Your task to perform on an android device: Clear the shopping cart on bestbuy.com. Add usb-c to usb-a to the cart on bestbuy.com, then select checkout. Image 0: 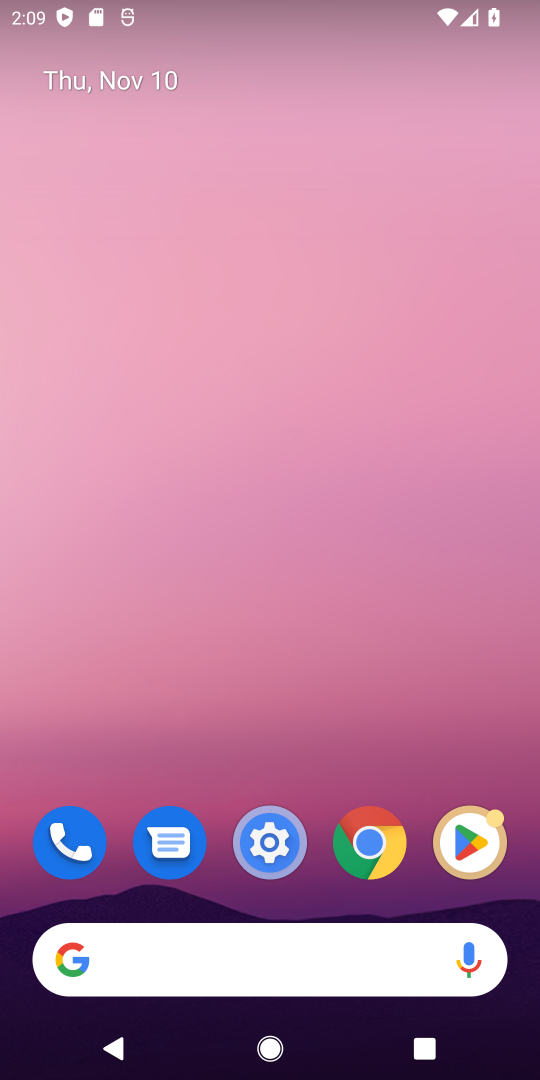
Step 0: press home button
Your task to perform on an android device: Clear the shopping cart on bestbuy.com. Add usb-c to usb-a to the cart on bestbuy.com, then select checkout. Image 1: 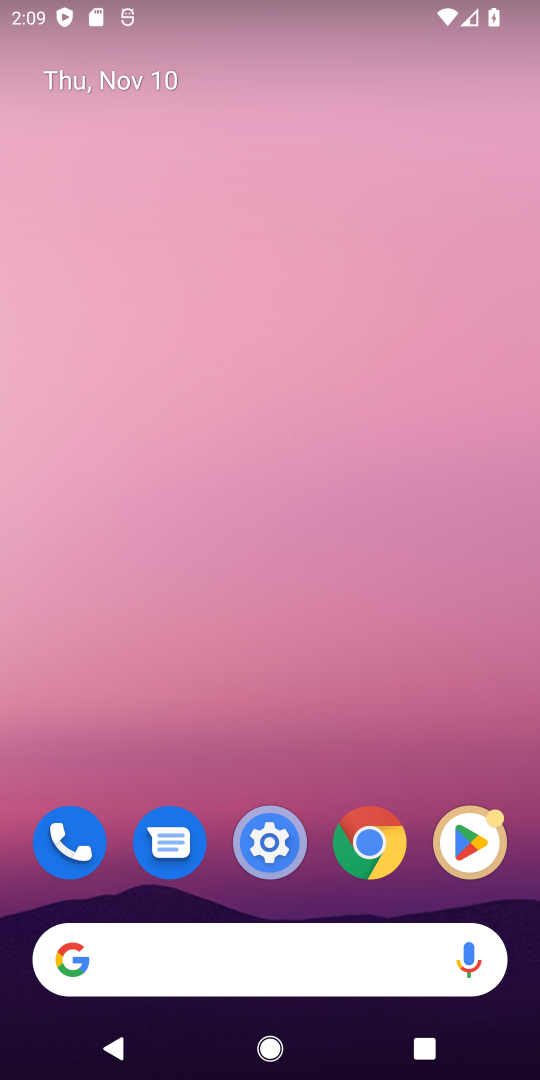
Step 1: click (116, 957)
Your task to perform on an android device: Clear the shopping cart on bestbuy.com. Add usb-c to usb-a to the cart on bestbuy.com, then select checkout. Image 2: 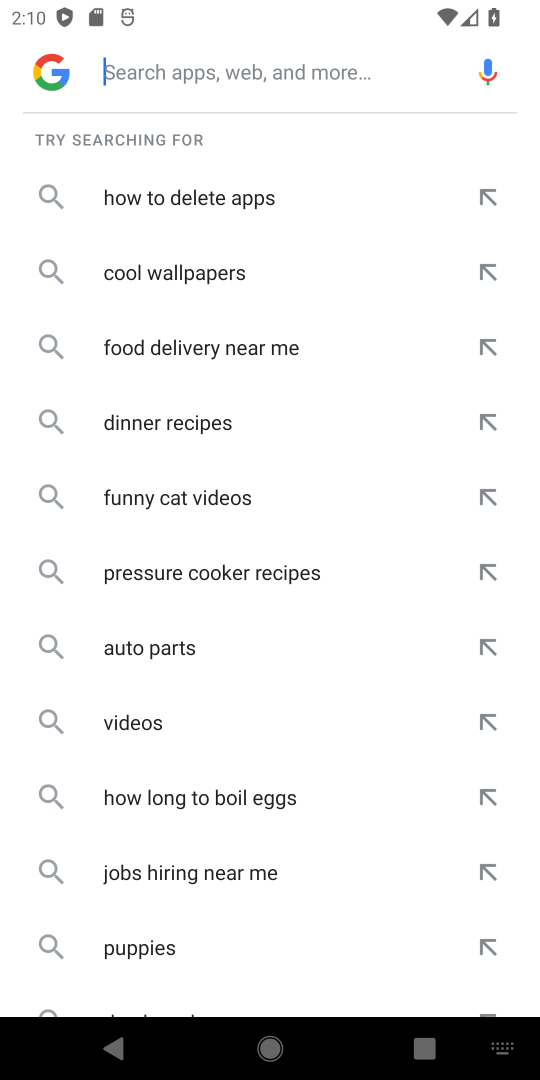
Step 2: type "bestbuy.com"
Your task to perform on an android device: Clear the shopping cart on bestbuy.com. Add usb-c to usb-a to the cart on bestbuy.com, then select checkout. Image 3: 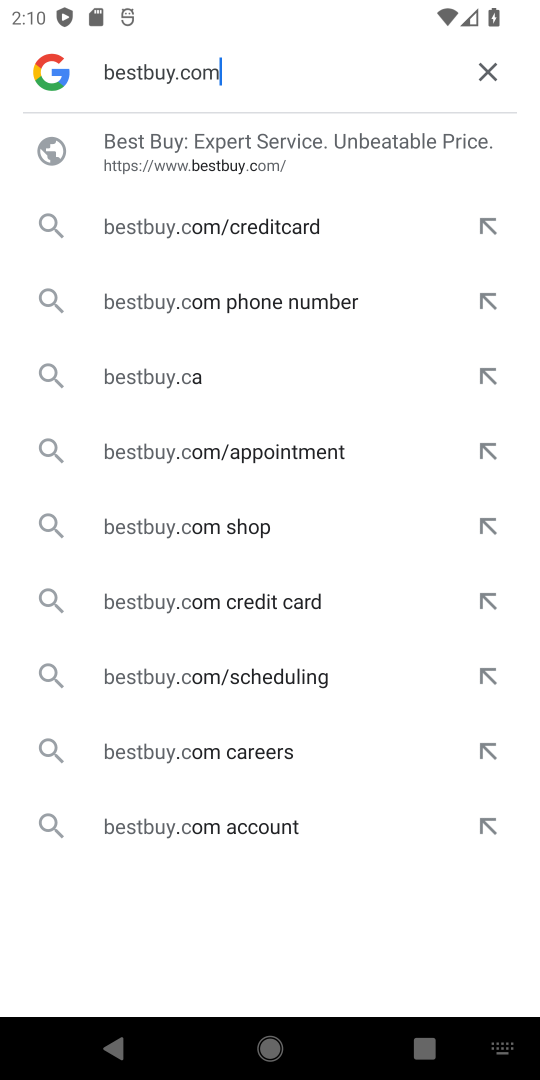
Step 3: press enter
Your task to perform on an android device: Clear the shopping cart on bestbuy.com. Add usb-c to usb-a to the cart on bestbuy.com, then select checkout. Image 4: 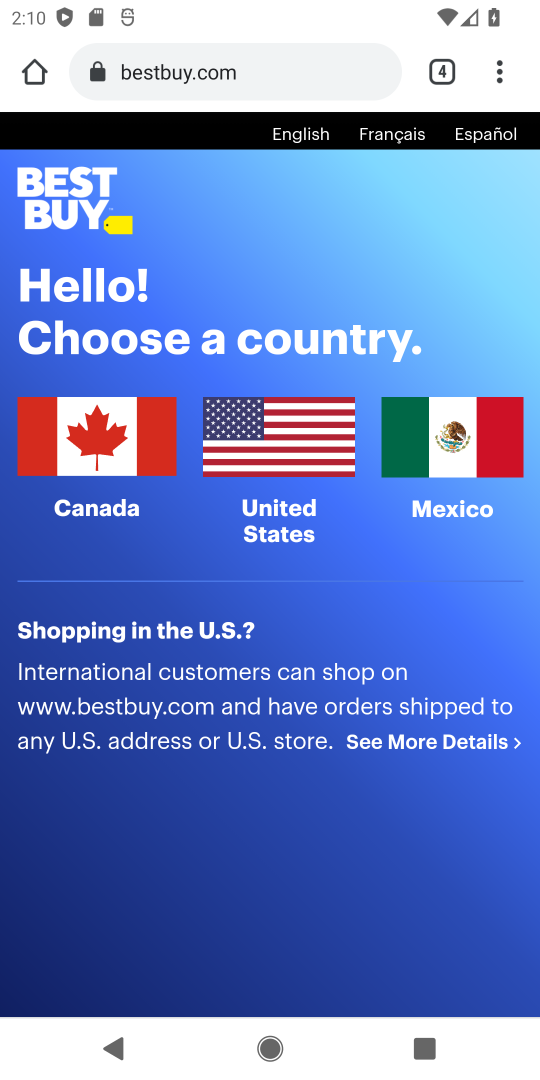
Step 4: click (88, 437)
Your task to perform on an android device: Clear the shopping cart on bestbuy.com. Add usb-c to usb-a to the cart on bestbuy.com, then select checkout. Image 5: 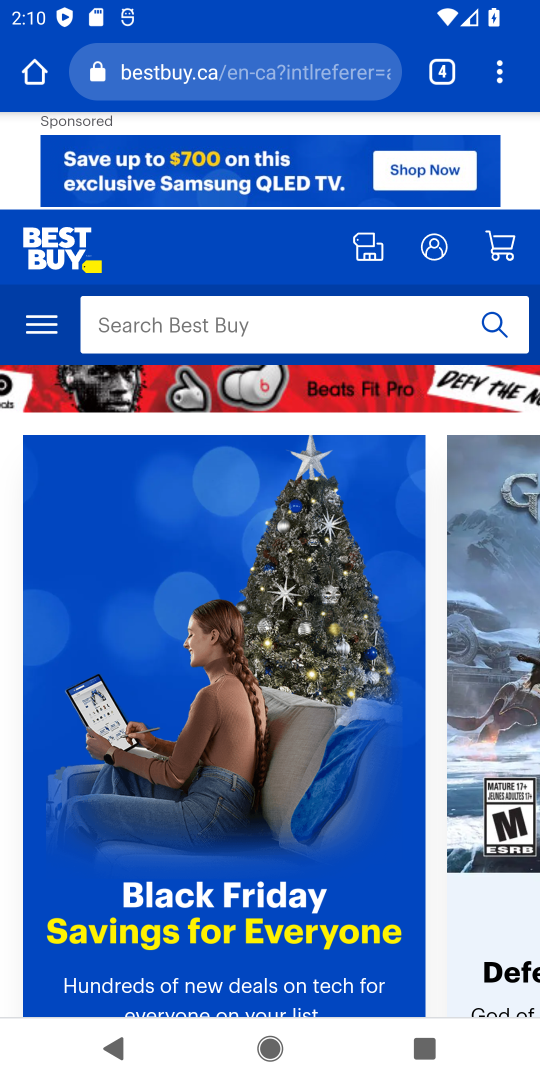
Step 5: click (162, 320)
Your task to perform on an android device: Clear the shopping cart on bestbuy.com. Add usb-c to usb-a to the cart on bestbuy.com, then select checkout. Image 6: 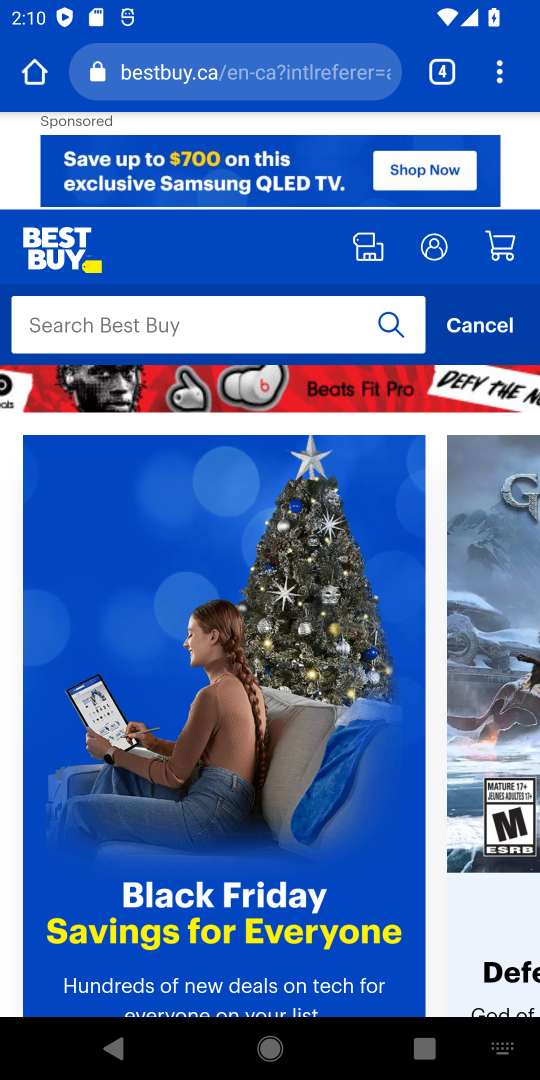
Step 6: press enter
Your task to perform on an android device: Clear the shopping cart on bestbuy.com. Add usb-c to usb-a to the cart on bestbuy.com, then select checkout. Image 7: 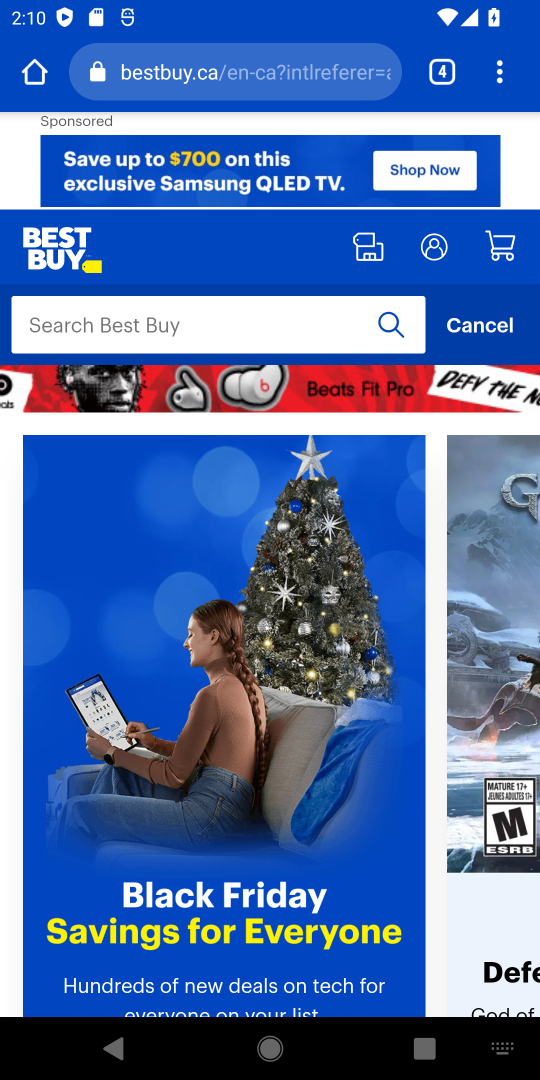
Step 7: type "usb-c to usb-a "
Your task to perform on an android device: Clear the shopping cart on bestbuy.com. Add usb-c to usb-a to the cart on bestbuy.com, then select checkout. Image 8: 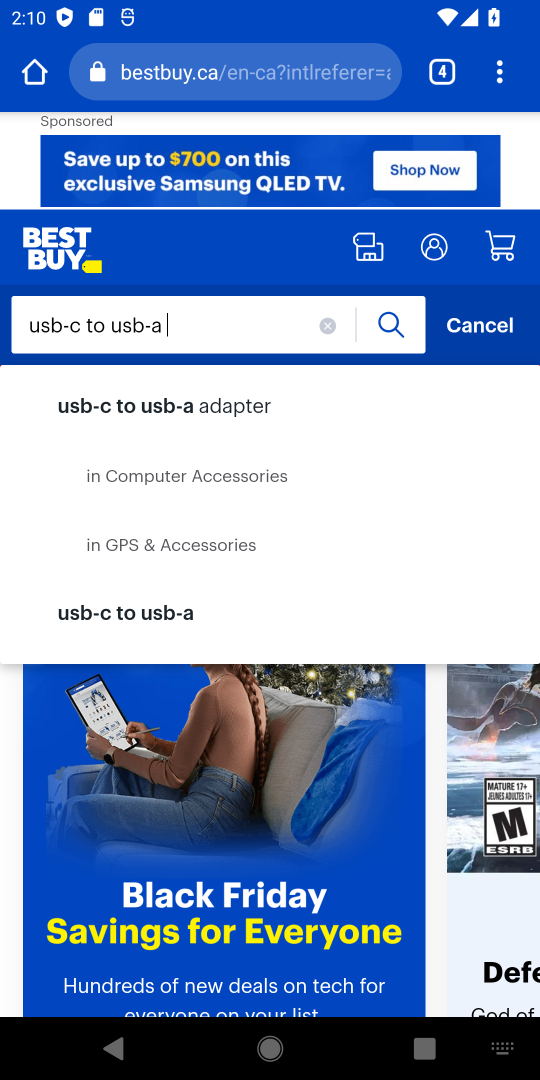
Step 8: click (393, 325)
Your task to perform on an android device: Clear the shopping cart on bestbuy.com. Add usb-c to usb-a to the cart on bestbuy.com, then select checkout. Image 9: 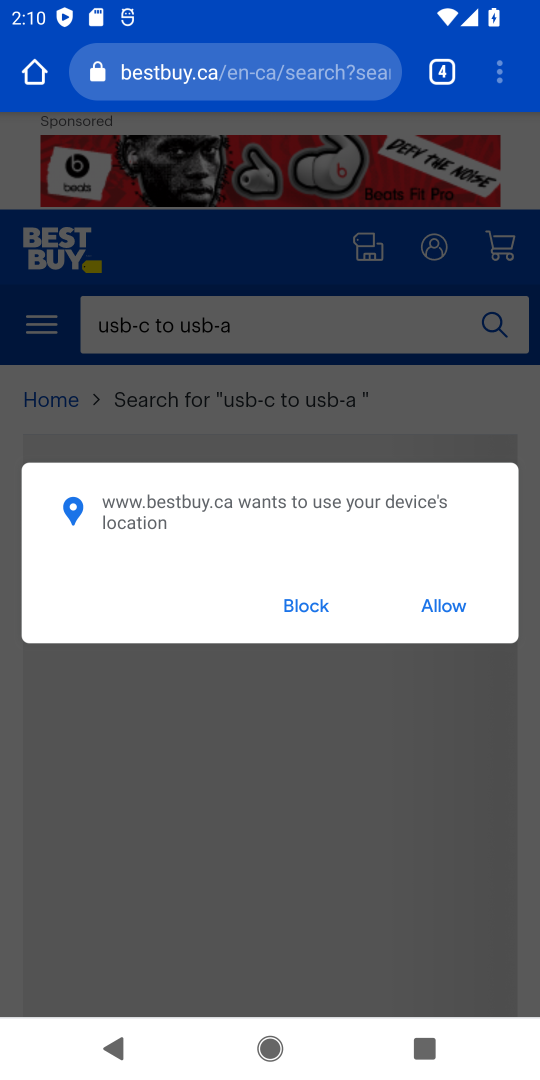
Step 9: click (310, 598)
Your task to perform on an android device: Clear the shopping cart on bestbuy.com. Add usb-c to usb-a to the cart on bestbuy.com, then select checkout. Image 10: 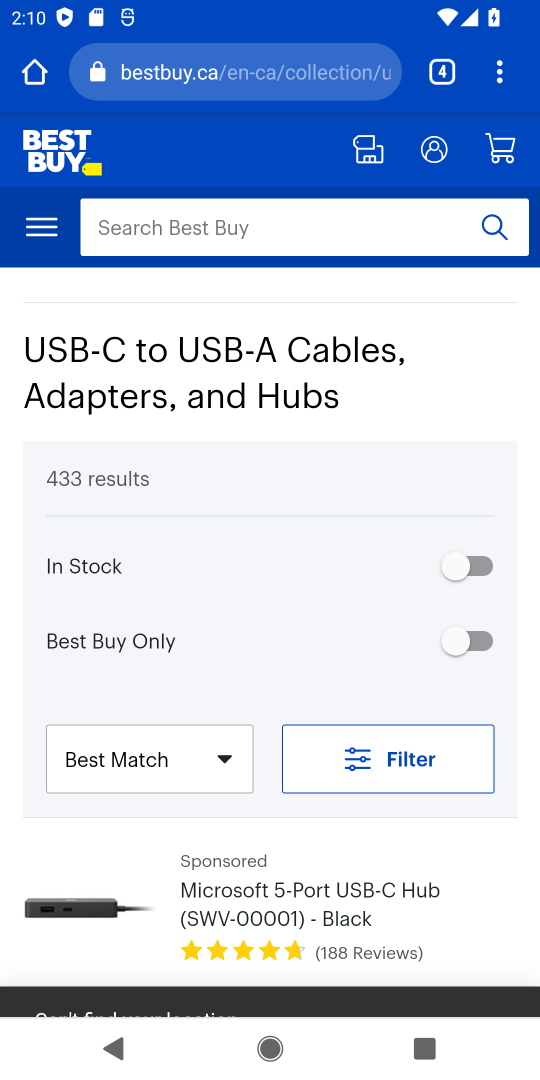
Step 10: drag from (377, 847) to (401, 517)
Your task to perform on an android device: Clear the shopping cart on bestbuy.com. Add usb-c to usb-a to the cart on bestbuy.com, then select checkout. Image 11: 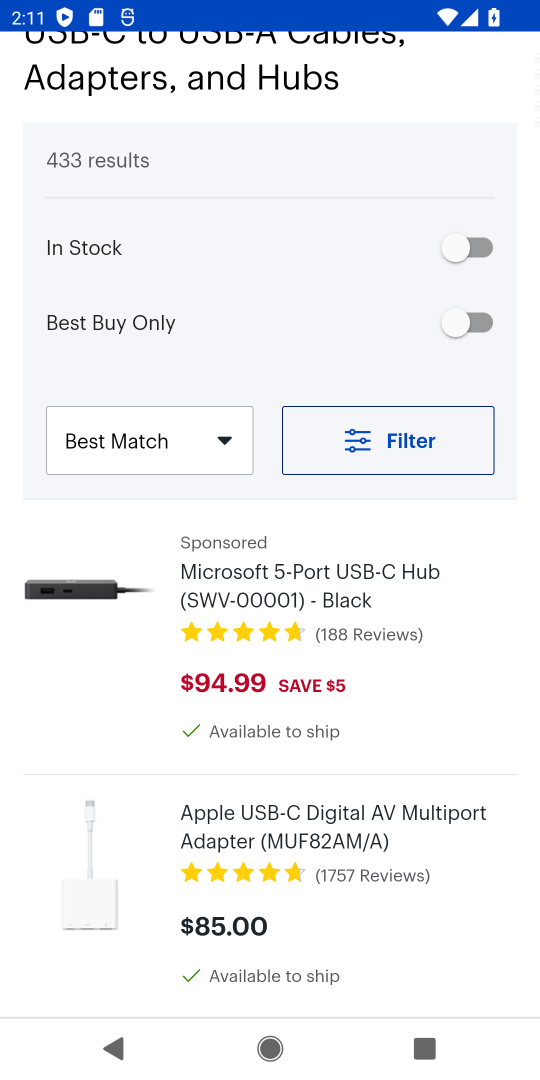
Step 11: drag from (403, 945) to (441, 658)
Your task to perform on an android device: Clear the shopping cart on bestbuy.com. Add usb-c to usb-a to the cart on bestbuy.com, then select checkout. Image 12: 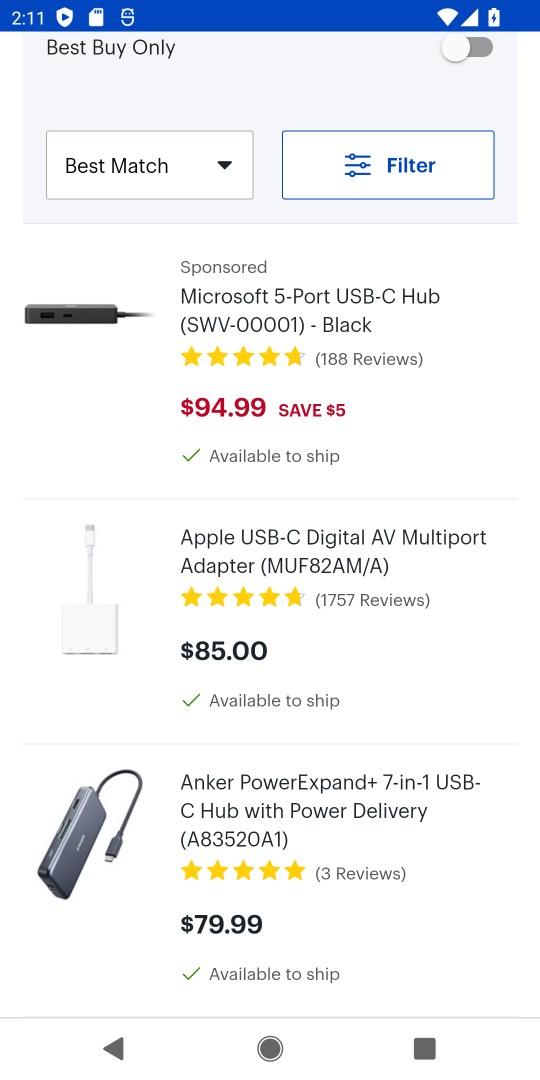
Step 12: drag from (390, 892) to (390, 461)
Your task to perform on an android device: Clear the shopping cart on bestbuy.com. Add usb-c to usb-a to the cart on bestbuy.com, then select checkout. Image 13: 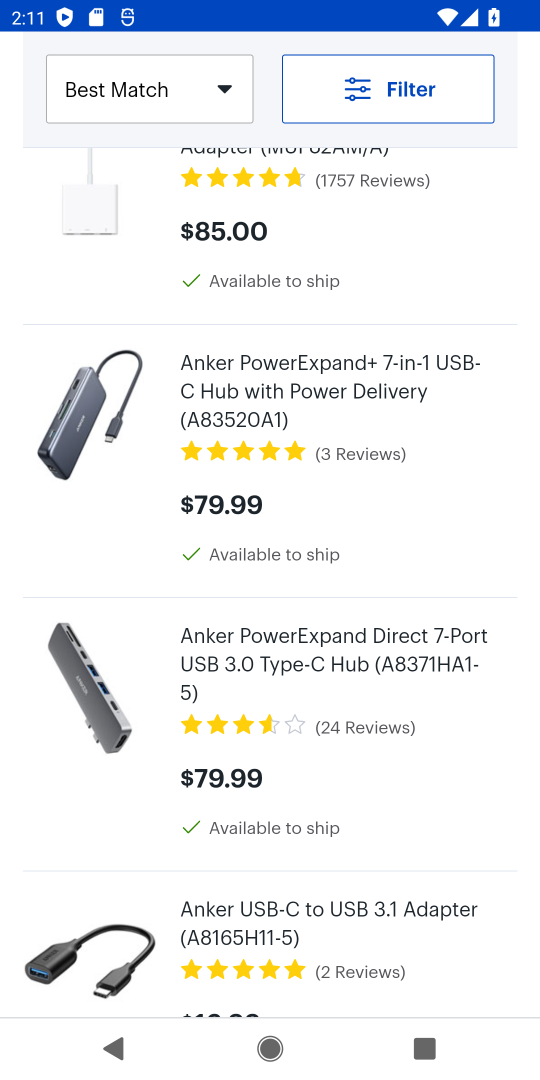
Step 13: drag from (397, 965) to (399, 695)
Your task to perform on an android device: Clear the shopping cart on bestbuy.com. Add usb-c to usb-a to the cart on bestbuy.com, then select checkout. Image 14: 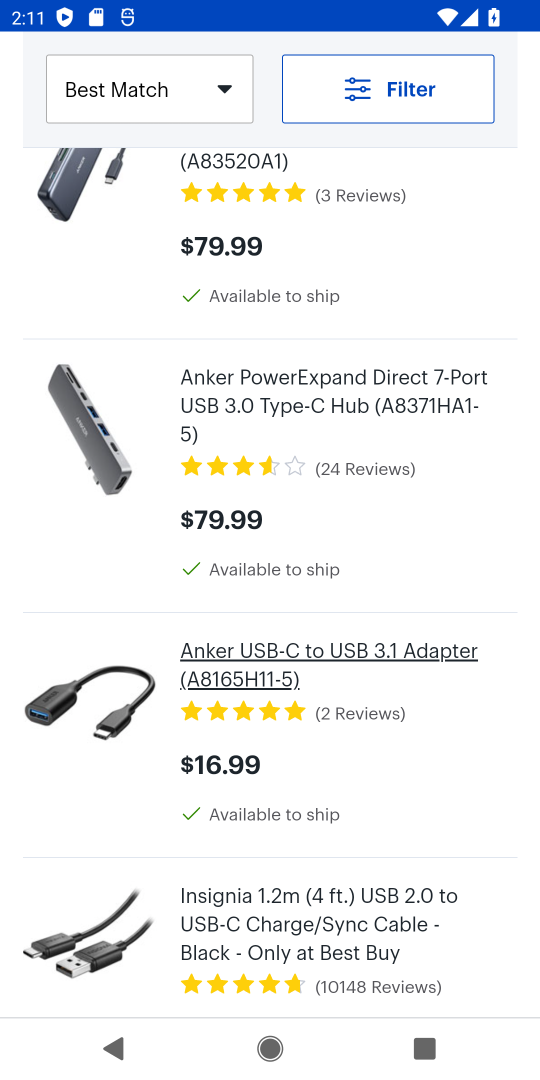
Step 14: drag from (380, 897) to (399, 583)
Your task to perform on an android device: Clear the shopping cart on bestbuy.com. Add usb-c to usb-a to the cart on bestbuy.com, then select checkout. Image 15: 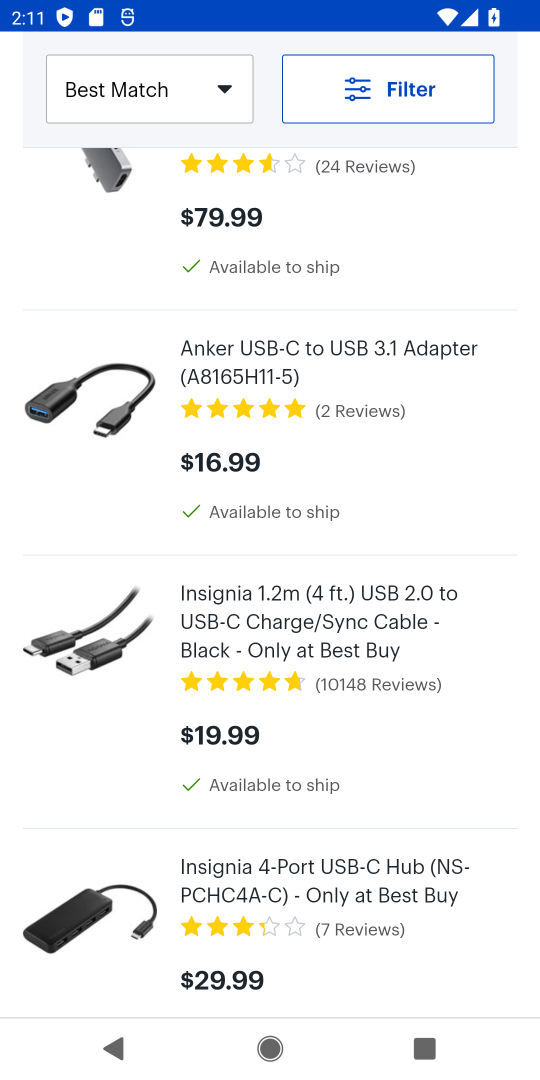
Step 15: drag from (362, 929) to (377, 766)
Your task to perform on an android device: Clear the shopping cart on bestbuy.com. Add usb-c to usb-a to the cart on bestbuy.com, then select checkout. Image 16: 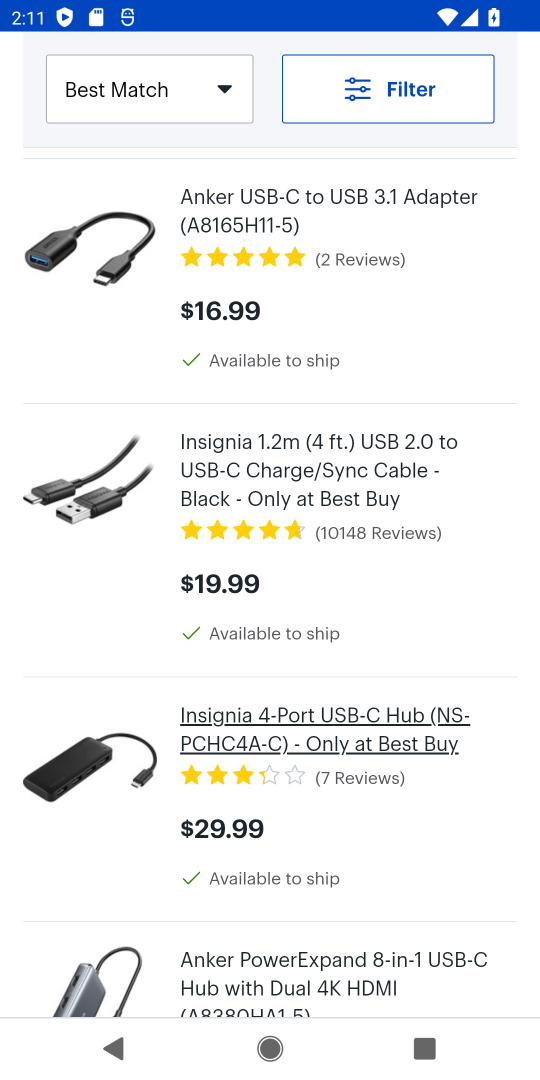
Step 16: drag from (375, 868) to (433, 535)
Your task to perform on an android device: Clear the shopping cart on bestbuy.com. Add usb-c to usb-a to the cart on bestbuy.com, then select checkout. Image 17: 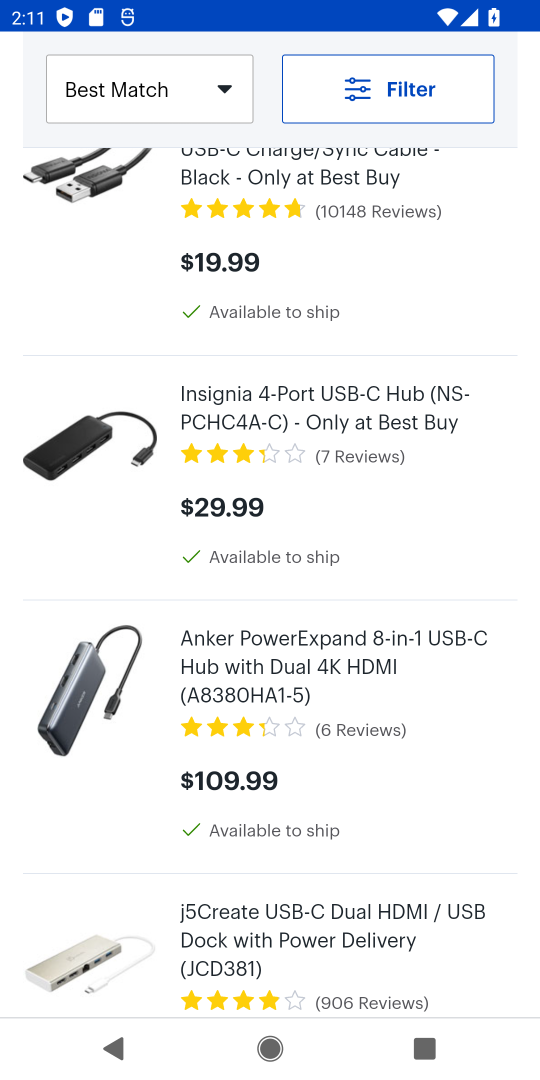
Step 17: drag from (352, 884) to (395, 475)
Your task to perform on an android device: Clear the shopping cart on bestbuy.com. Add usb-c to usb-a to the cart on bestbuy.com, then select checkout. Image 18: 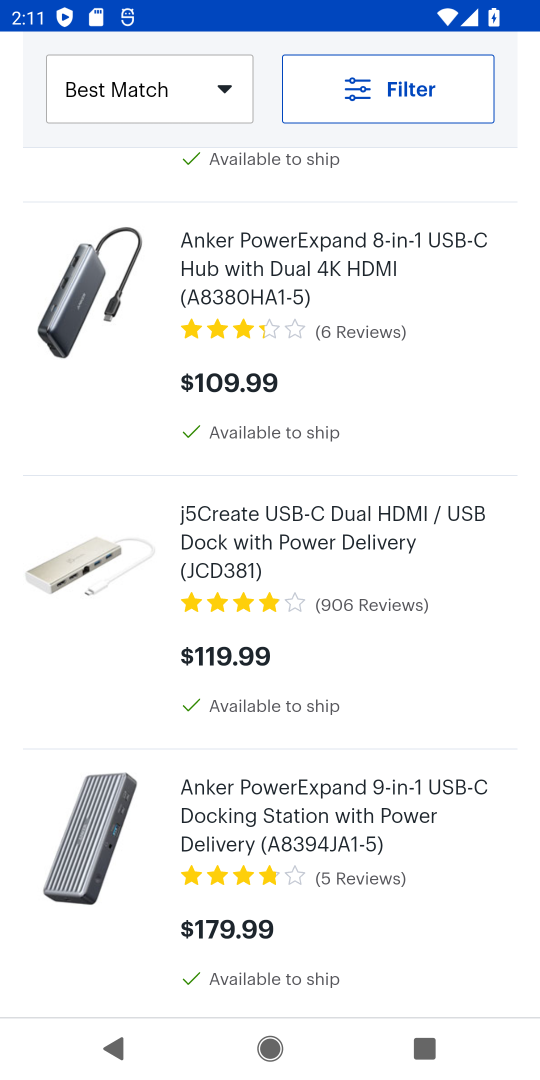
Step 18: drag from (364, 876) to (416, 536)
Your task to perform on an android device: Clear the shopping cart on bestbuy.com. Add usb-c to usb-a to the cart on bestbuy.com, then select checkout. Image 19: 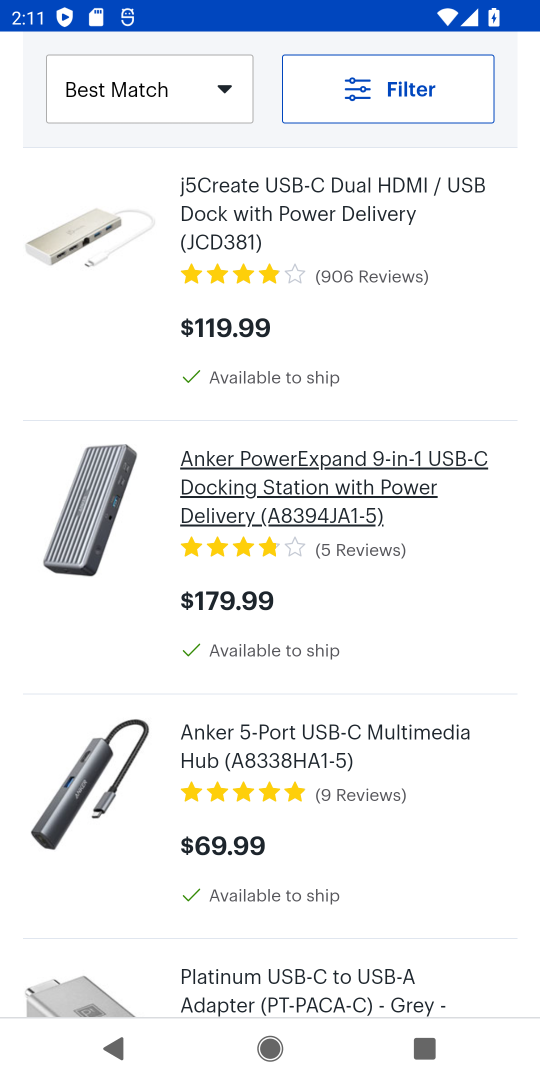
Step 19: drag from (462, 903) to (466, 481)
Your task to perform on an android device: Clear the shopping cart on bestbuy.com. Add usb-c to usb-a to the cart on bestbuy.com, then select checkout. Image 20: 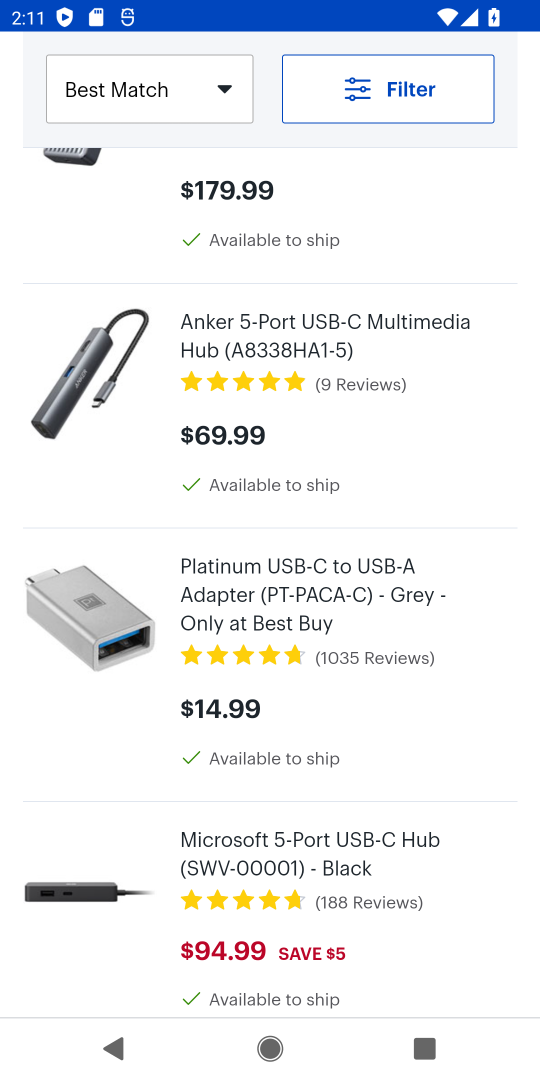
Step 20: drag from (453, 903) to (466, 496)
Your task to perform on an android device: Clear the shopping cart on bestbuy.com. Add usb-c to usb-a to the cart on bestbuy.com, then select checkout. Image 21: 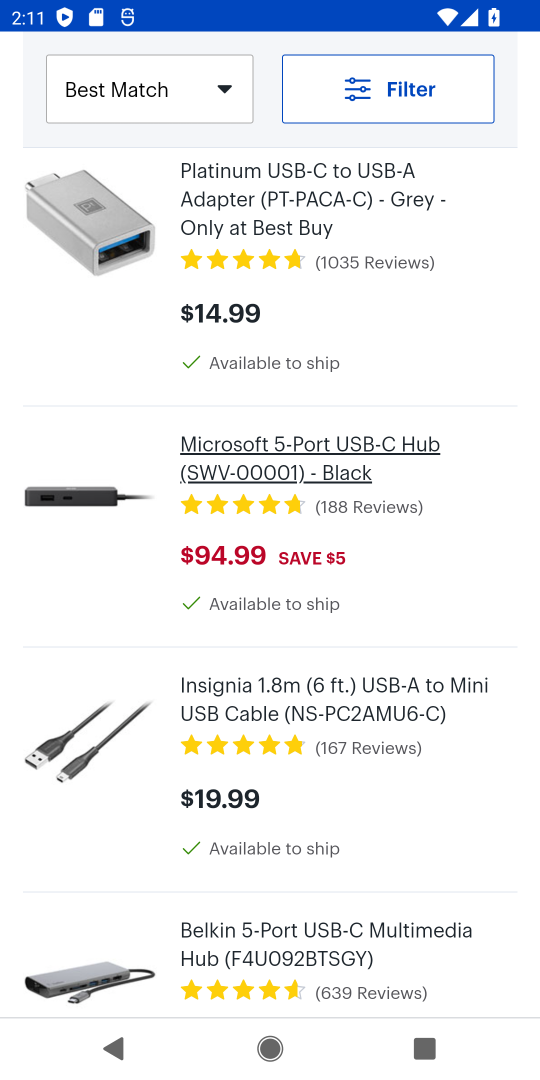
Step 21: drag from (408, 844) to (415, 714)
Your task to perform on an android device: Clear the shopping cart on bestbuy.com. Add usb-c to usb-a to the cart on bestbuy.com, then select checkout. Image 22: 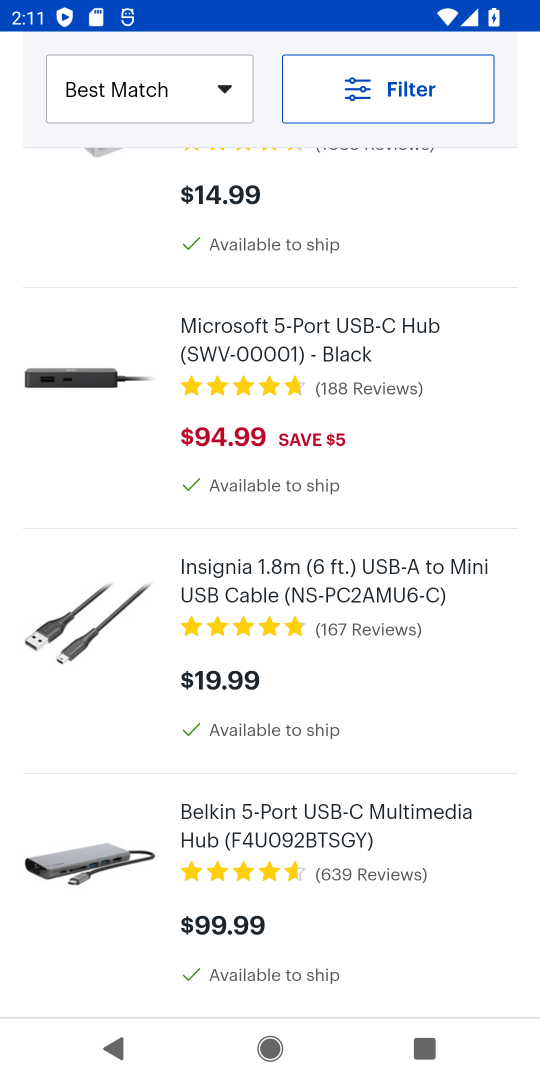
Step 22: drag from (411, 829) to (426, 679)
Your task to perform on an android device: Clear the shopping cart on bestbuy.com. Add usb-c to usb-a to the cart on bestbuy.com, then select checkout. Image 23: 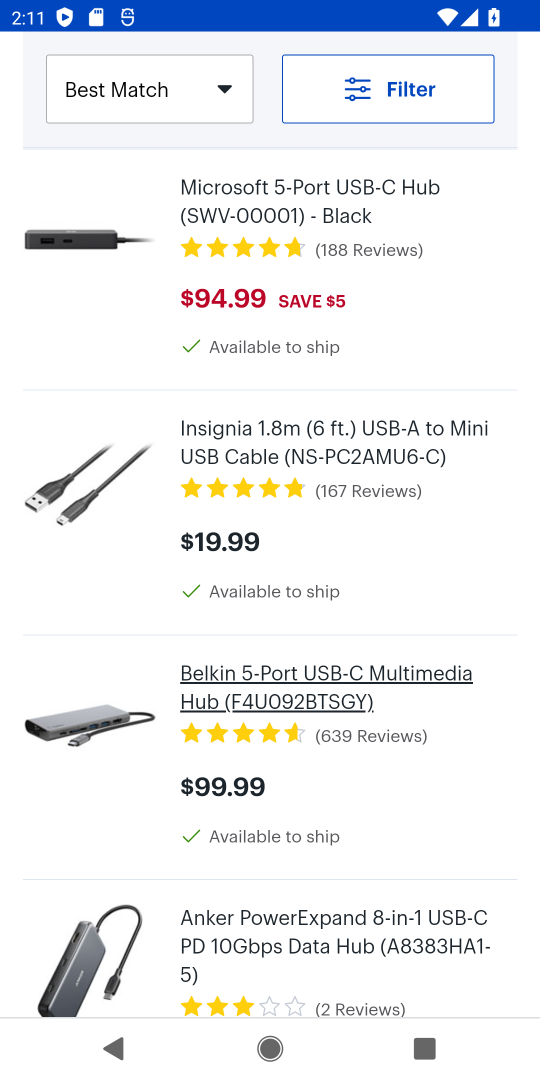
Step 23: drag from (404, 845) to (401, 476)
Your task to perform on an android device: Clear the shopping cart on bestbuy.com. Add usb-c to usb-a to the cart on bestbuy.com, then select checkout. Image 24: 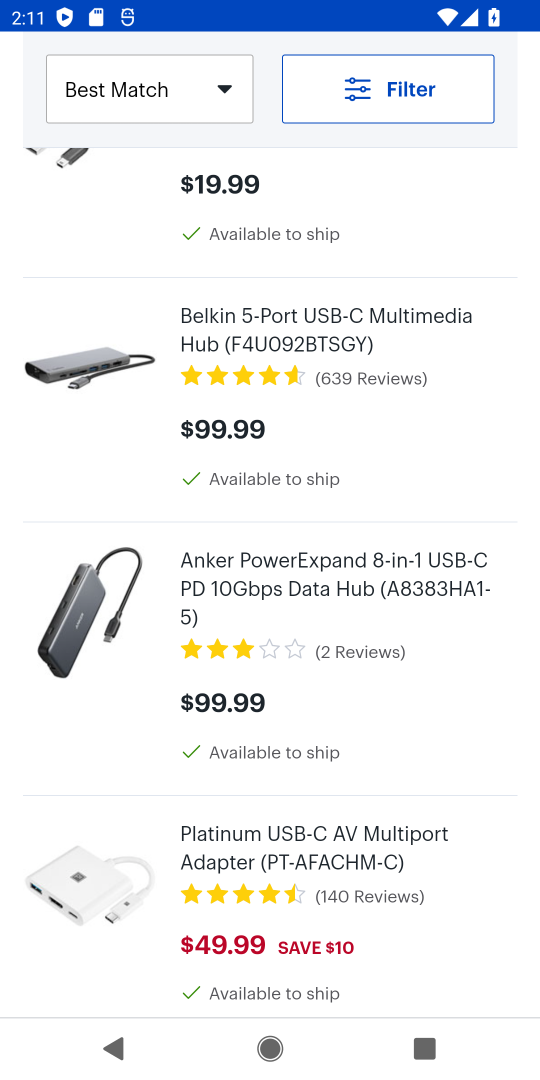
Step 24: drag from (371, 917) to (395, 517)
Your task to perform on an android device: Clear the shopping cart on bestbuy.com. Add usb-c to usb-a to the cart on bestbuy.com, then select checkout. Image 25: 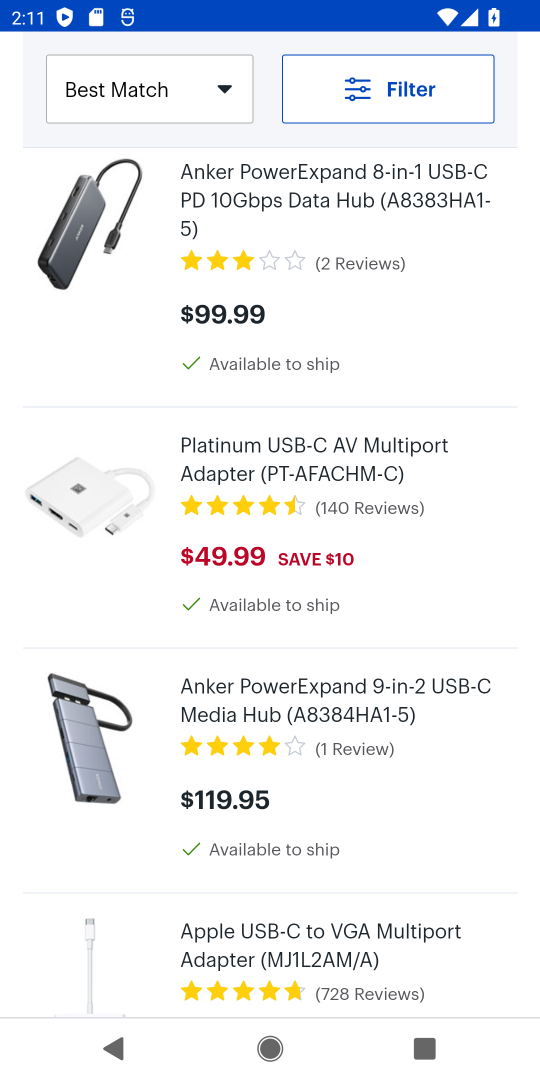
Step 25: drag from (366, 895) to (397, 555)
Your task to perform on an android device: Clear the shopping cart on bestbuy.com. Add usb-c to usb-a to the cart on bestbuy.com, then select checkout. Image 26: 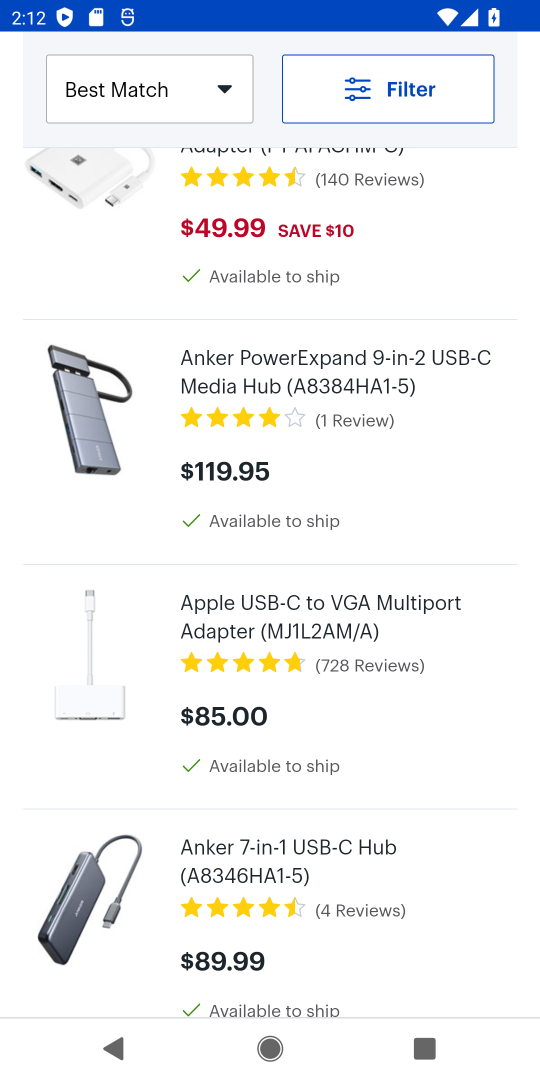
Step 26: drag from (392, 877) to (429, 516)
Your task to perform on an android device: Clear the shopping cart on bestbuy.com. Add usb-c to usb-a to the cart on bestbuy.com, then select checkout. Image 27: 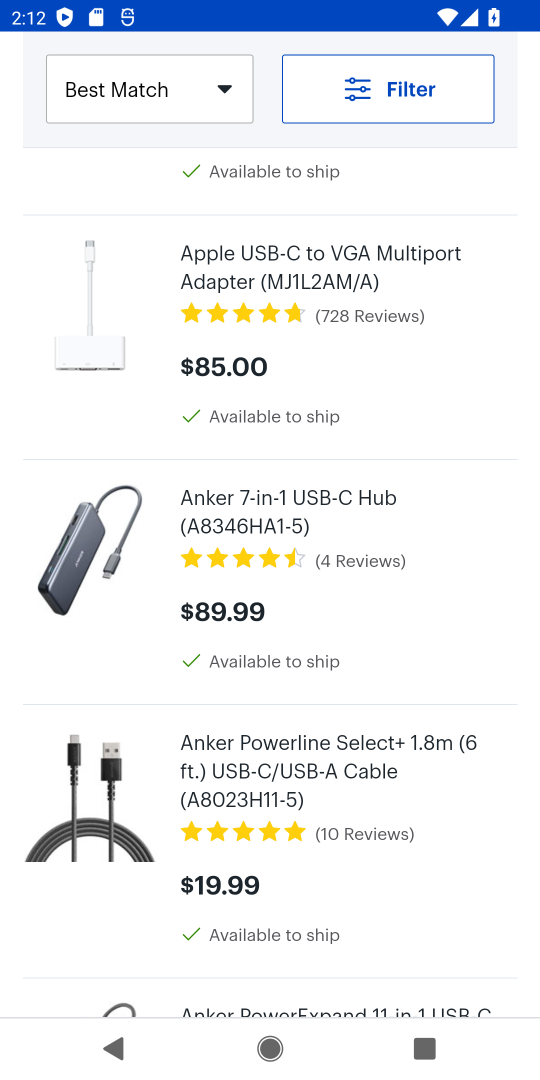
Step 27: click (298, 772)
Your task to perform on an android device: Clear the shopping cart on bestbuy.com. Add usb-c to usb-a to the cart on bestbuy.com, then select checkout. Image 28: 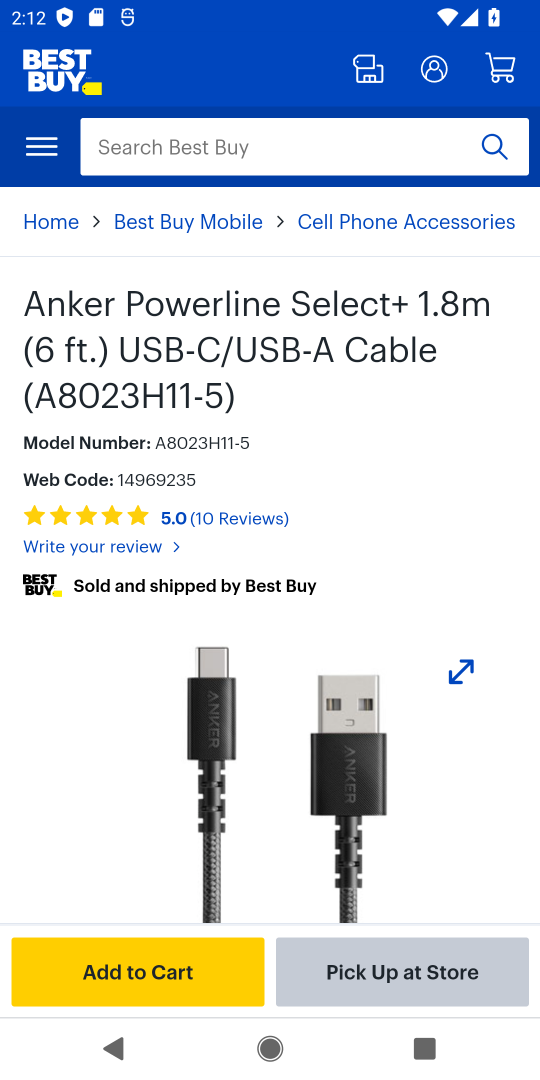
Step 28: drag from (305, 776) to (326, 481)
Your task to perform on an android device: Clear the shopping cart on bestbuy.com. Add usb-c to usb-a to the cart on bestbuy.com, then select checkout. Image 29: 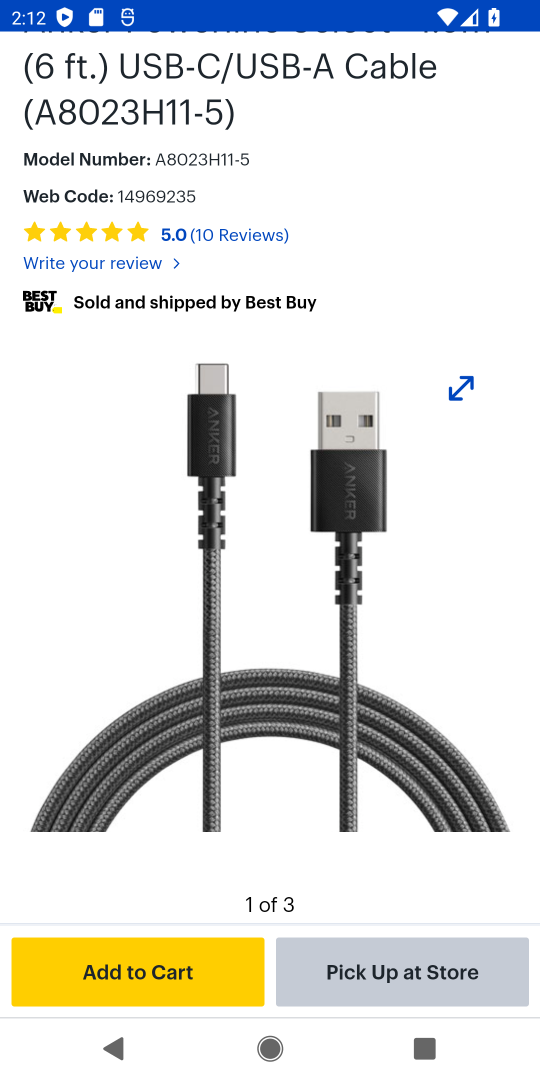
Step 29: click (109, 986)
Your task to perform on an android device: Clear the shopping cart on bestbuy.com. Add usb-c to usb-a to the cart on bestbuy.com, then select checkout. Image 30: 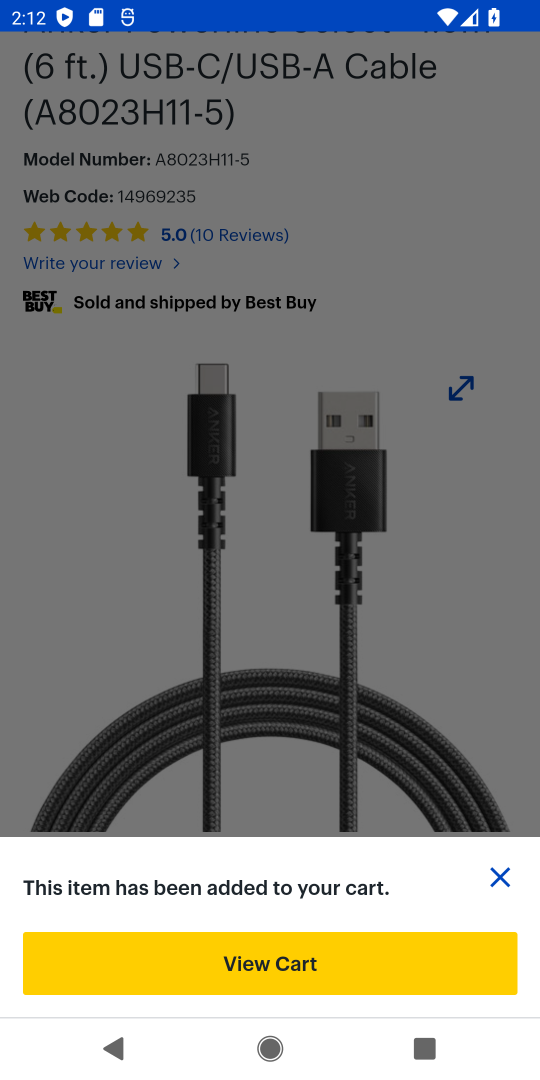
Step 30: click (264, 971)
Your task to perform on an android device: Clear the shopping cart on bestbuy.com. Add usb-c to usb-a to the cart on bestbuy.com, then select checkout. Image 31: 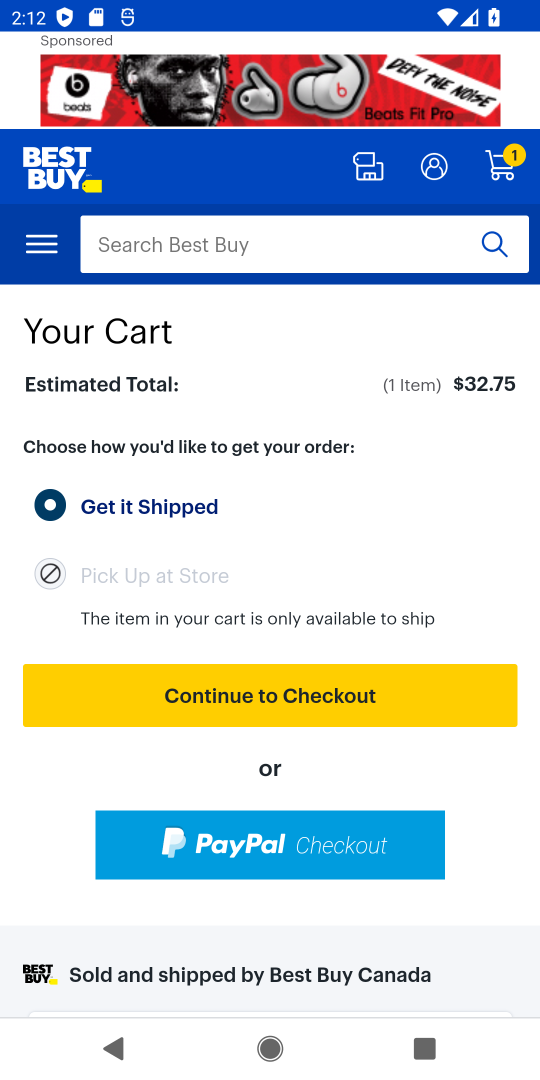
Step 31: click (247, 704)
Your task to perform on an android device: Clear the shopping cart on bestbuy.com. Add usb-c to usb-a to the cart on bestbuy.com, then select checkout. Image 32: 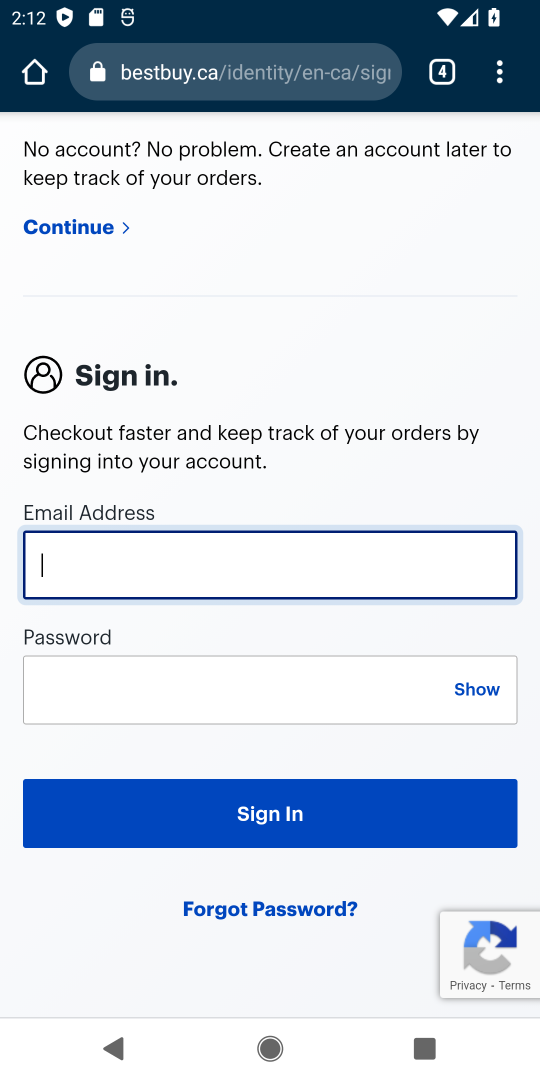
Step 32: task complete